Your task to perform on an android device: open sync settings in chrome Image 0: 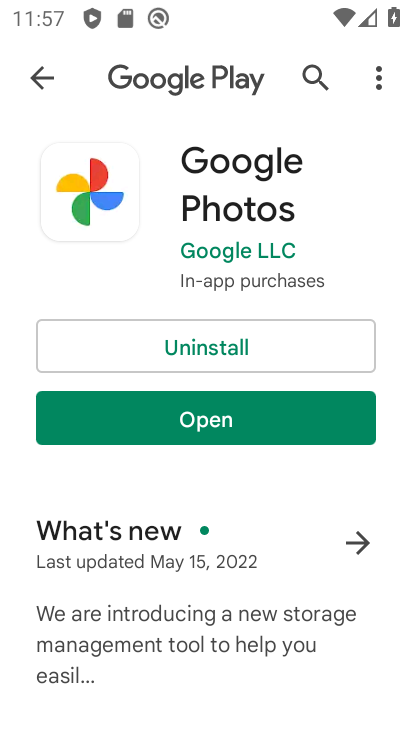
Step 0: press home button
Your task to perform on an android device: open sync settings in chrome Image 1: 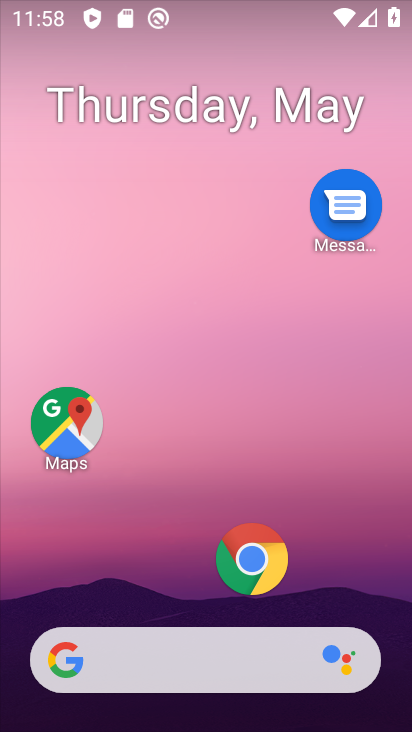
Step 1: drag from (149, 580) to (236, 139)
Your task to perform on an android device: open sync settings in chrome Image 2: 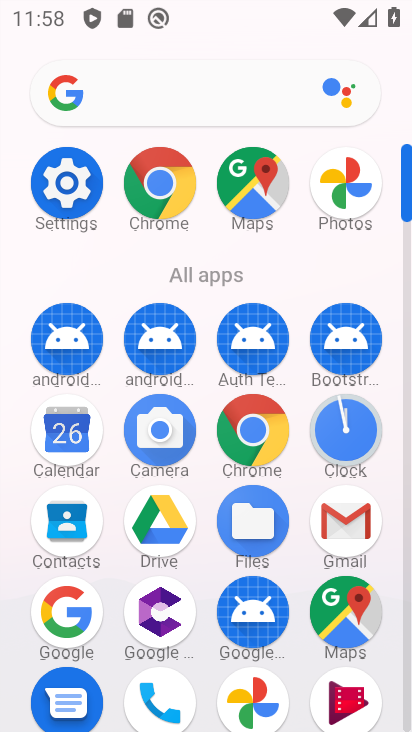
Step 2: click (169, 210)
Your task to perform on an android device: open sync settings in chrome Image 3: 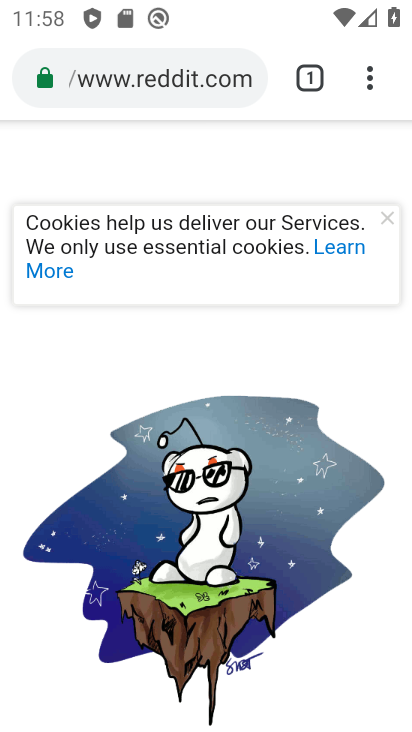
Step 3: click (363, 94)
Your task to perform on an android device: open sync settings in chrome Image 4: 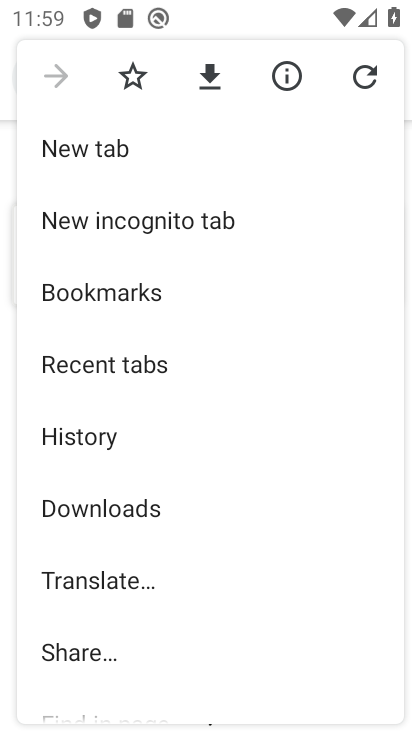
Step 4: drag from (130, 534) to (113, 195)
Your task to perform on an android device: open sync settings in chrome Image 5: 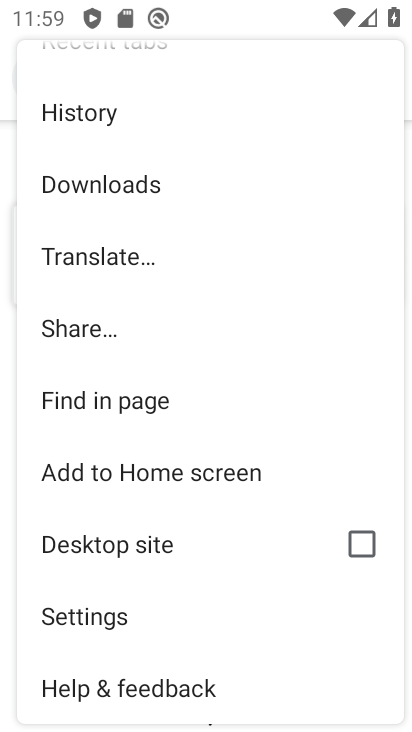
Step 5: drag from (187, 559) to (146, 362)
Your task to perform on an android device: open sync settings in chrome Image 6: 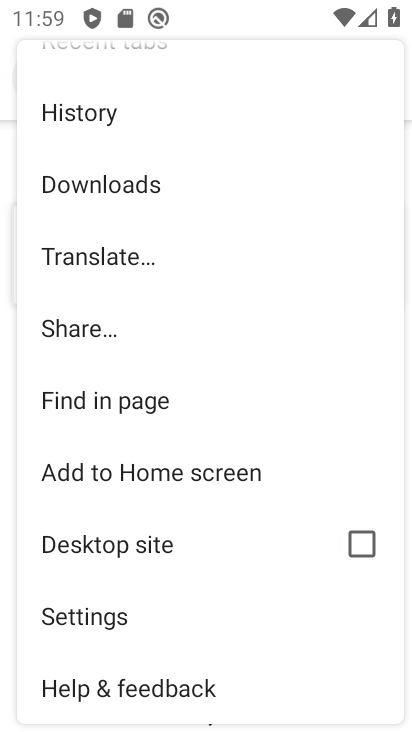
Step 6: click (137, 630)
Your task to perform on an android device: open sync settings in chrome Image 7: 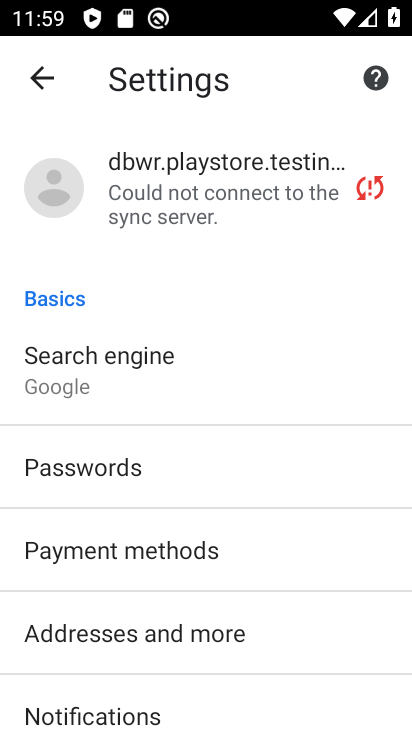
Step 7: click (255, 189)
Your task to perform on an android device: open sync settings in chrome Image 8: 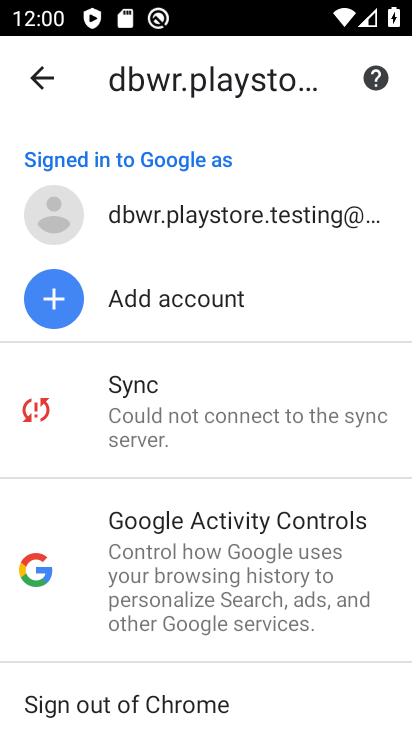
Step 8: click (211, 432)
Your task to perform on an android device: open sync settings in chrome Image 9: 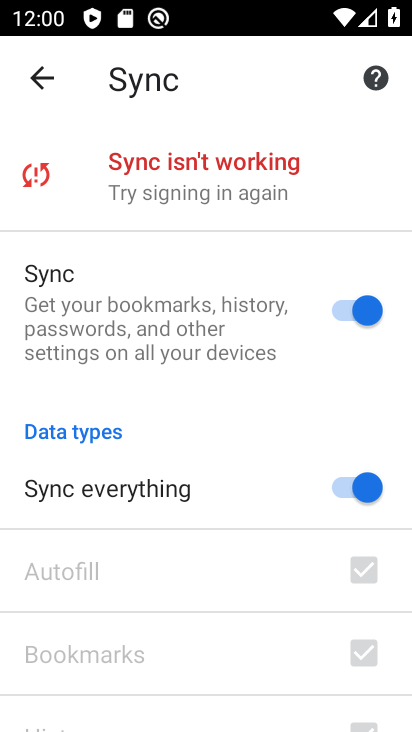
Step 9: task complete